Your task to perform on an android device: toggle wifi Image 0: 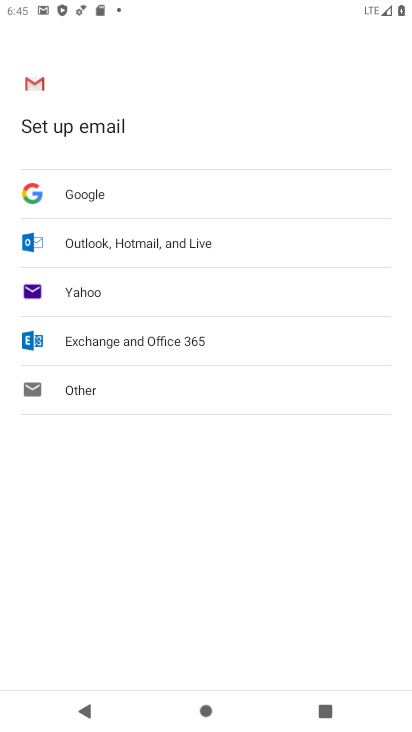
Step 0: press home button
Your task to perform on an android device: toggle wifi Image 1: 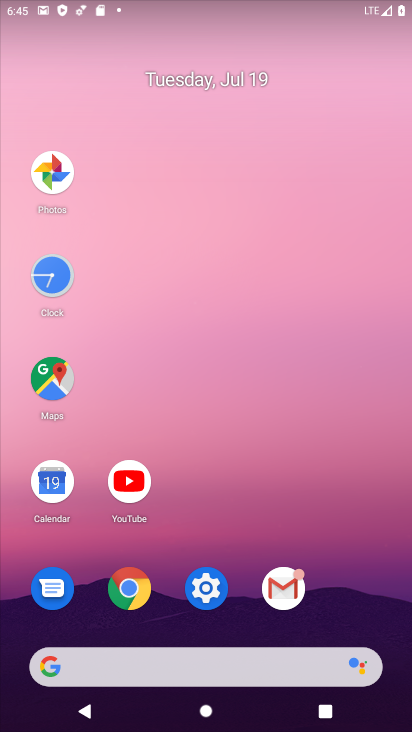
Step 1: click (207, 592)
Your task to perform on an android device: toggle wifi Image 2: 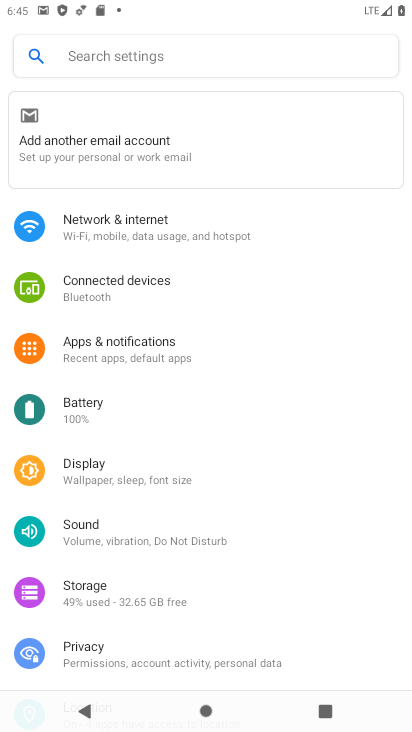
Step 2: click (86, 217)
Your task to perform on an android device: toggle wifi Image 3: 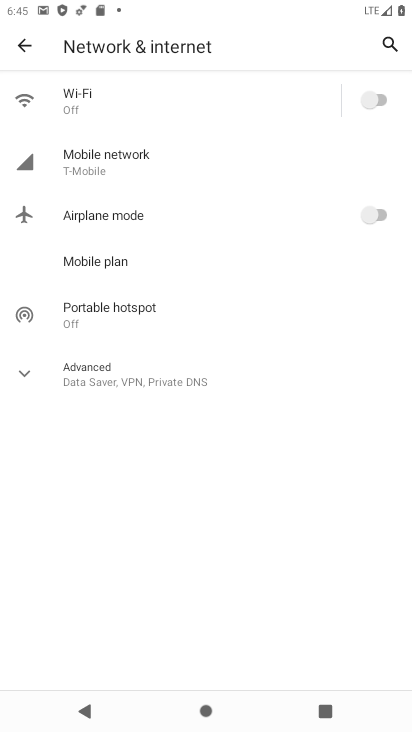
Step 3: click (373, 93)
Your task to perform on an android device: toggle wifi Image 4: 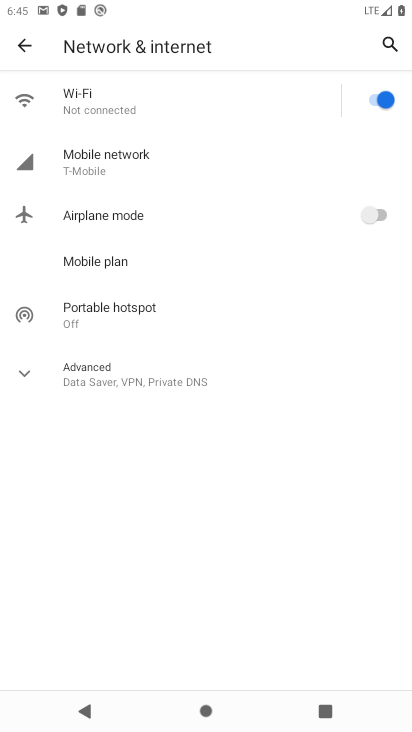
Step 4: task complete